Your task to perform on an android device: turn pop-ups on in chrome Image 0: 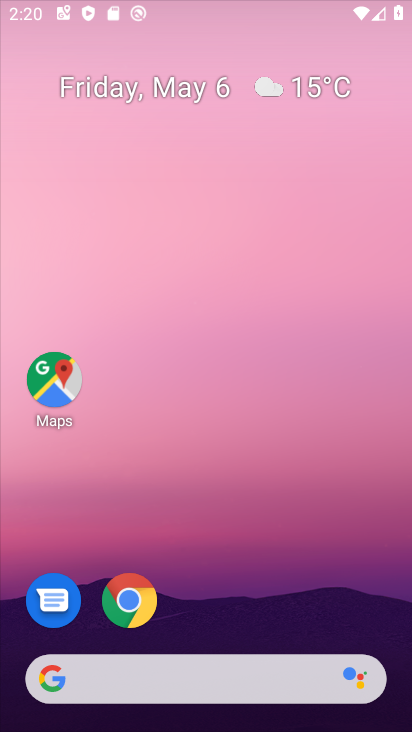
Step 0: drag from (307, 581) to (292, 12)
Your task to perform on an android device: turn pop-ups on in chrome Image 1: 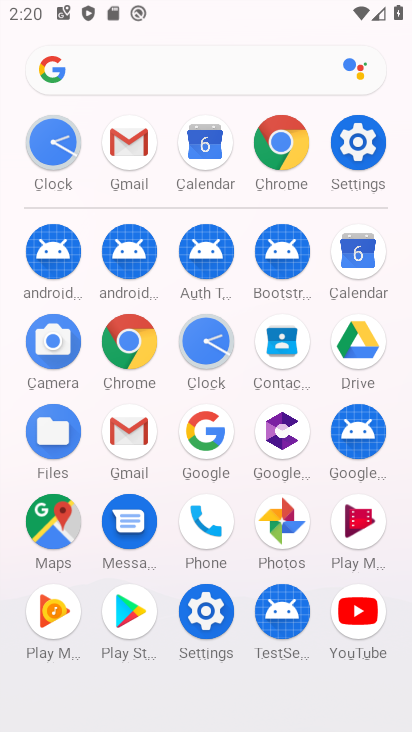
Step 1: click (129, 334)
Your task to perform on an android device: turn pop-ups on in chrome Image 2: 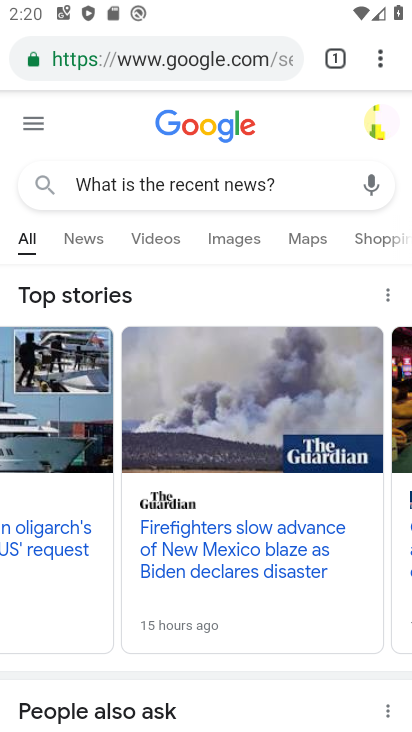
Step 2: drag from (380, 45) to (196, 653)
Your task to perform on an android device: turn pop-ups on in chrome Image 3: 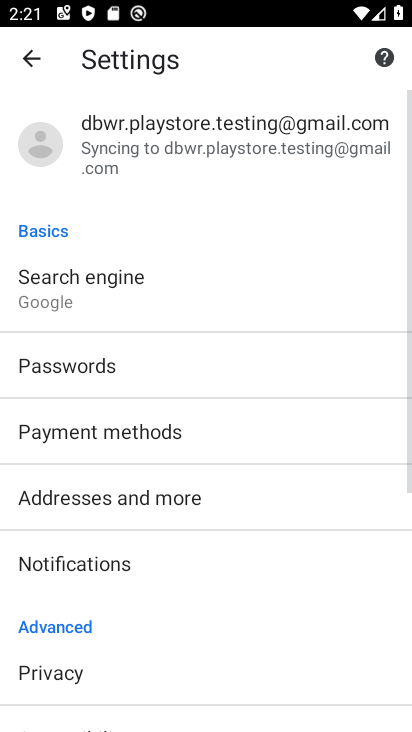
Step 3: drag from (240, 595) to (250, 103)
Your task to perform on an android device: turn pop-ups on in chrome Image 4: 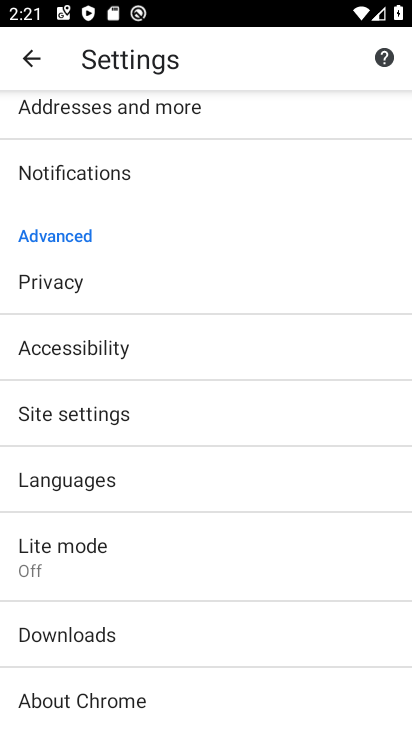
Step 4: click (125, 407)
Your task to perform on an android device: turn pop-ups on in chrome Image 5: 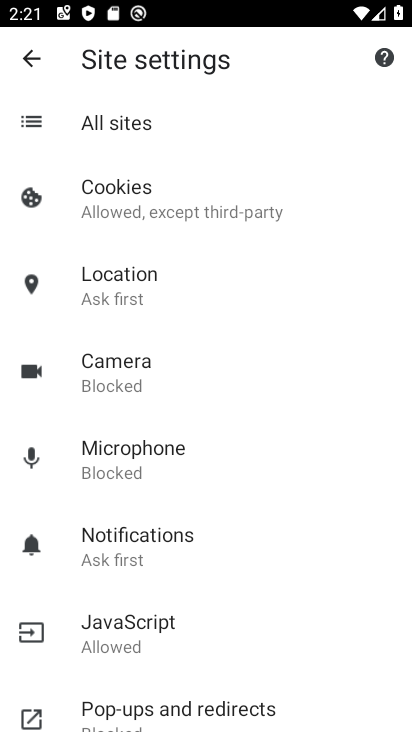
Step 5: drag from (241, 690) to (279, 318)
Your task to perform on an android device: turn pop-ups on in chrome Image 6: 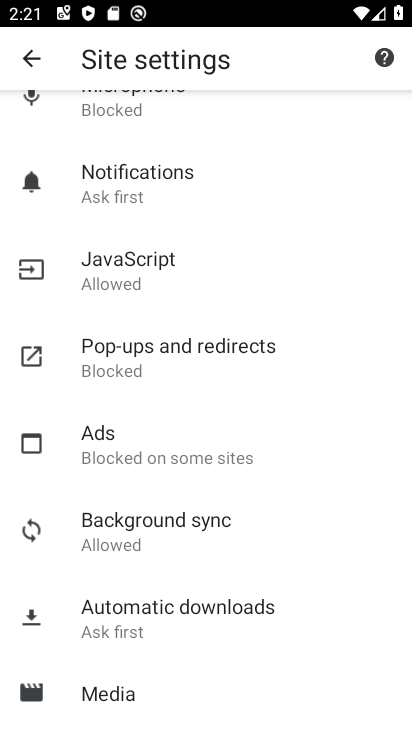
Step 6: click (214, 346)
Your task to perform on an android device: turn pop-ups on in chrome Image 7: 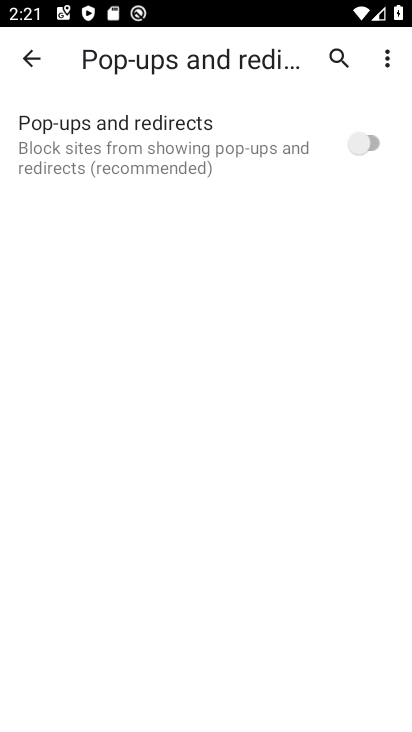
Step 7: click (361, 142)
Your task to perform on an android device: turn pop-ups on in chrome Image 8: 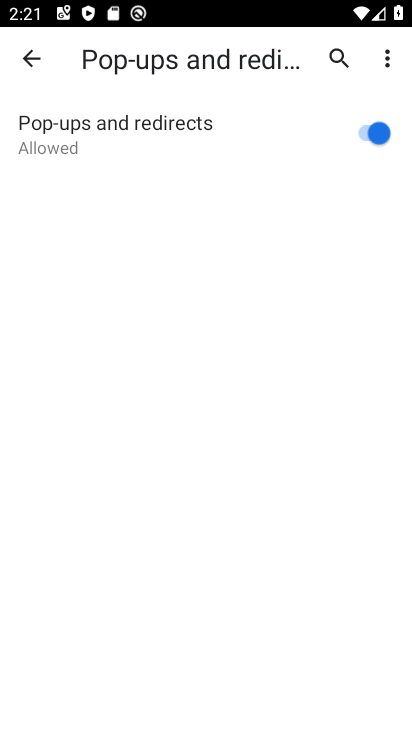
Step 8: task complete